Your task to perform on an android device: Open privacy settings Image 0: 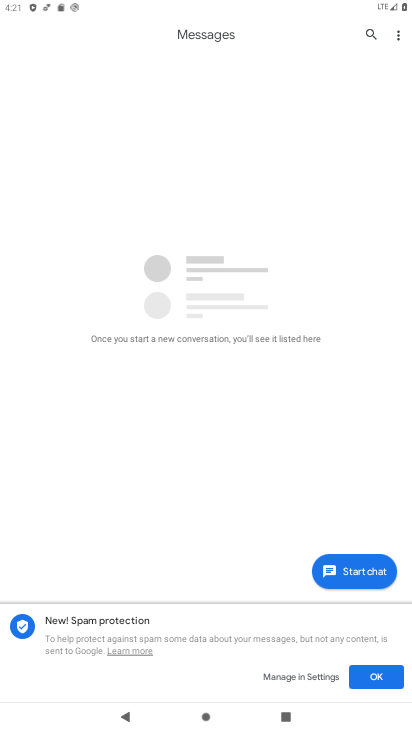
Step 0: drag from (198, 554) to (411, 473)
Your task to perform on an android device: Open privacy settings Image 1: 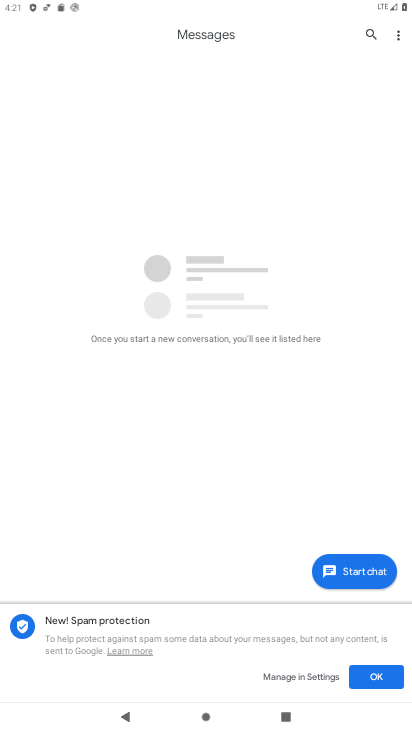
Step 1: press home button
Your task to perform on an android device: Open privacy settings Image 2: 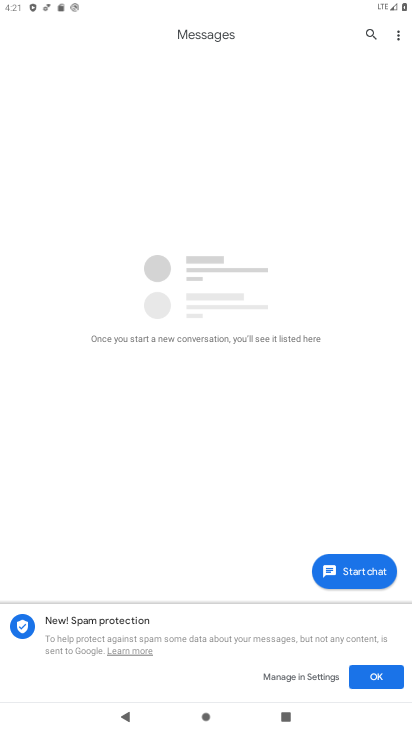
Step 2: drag from (411, 473) to (400, 567)
Your task to perform on an android device: Open privacy settings Image 3: 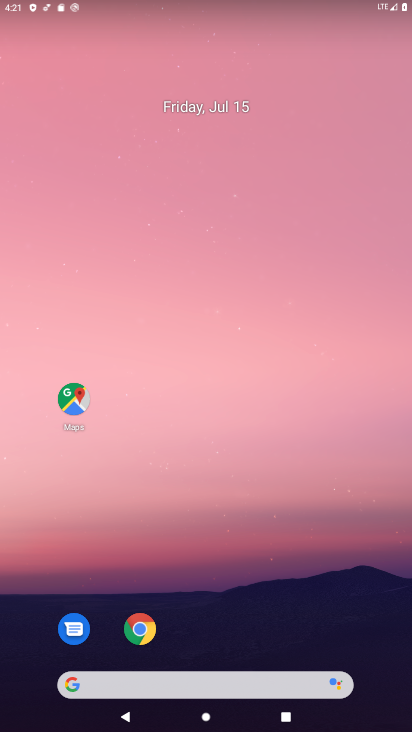
Step 3: drag from (176, 605) to (241, 134)
Your task to perform on an android device: Open privacy settings Image 4: 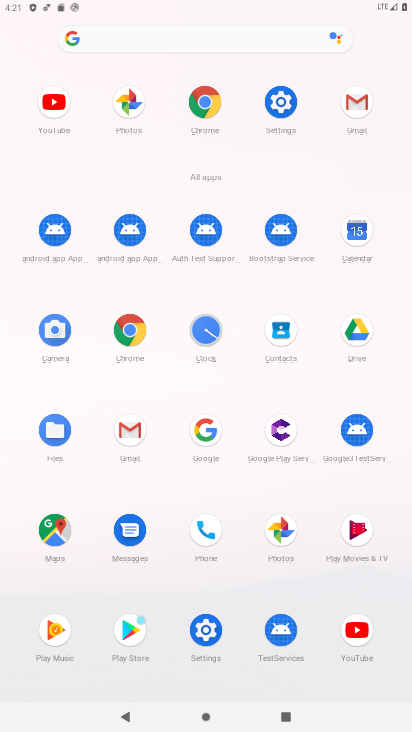
Step 4: click (276, 103)
Your task to perform on an android device: Open privacy settings Image 5: 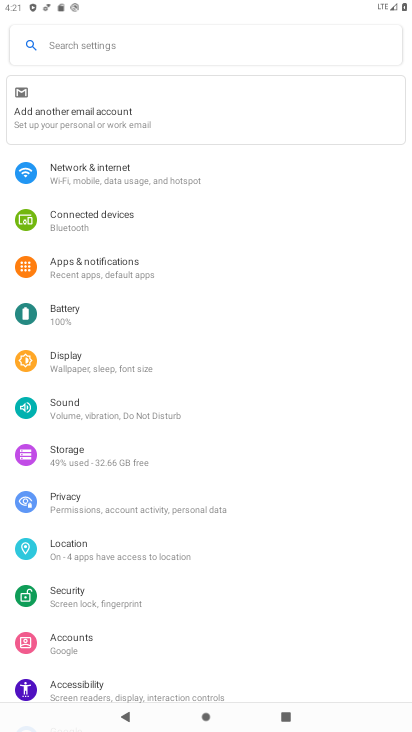
Step 5: click (113, 511)
Your task to perform on an android device: Open privacy settings Image 6: 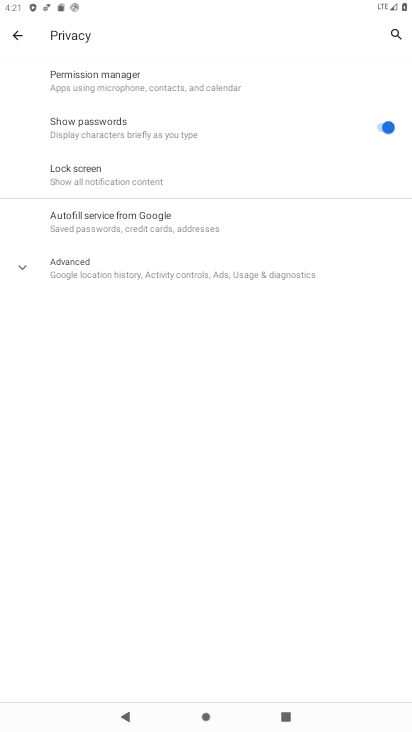
Step 6: task complete